Your task to perform on an android device: Search for the best custom wallets on Etsy. Image 0: 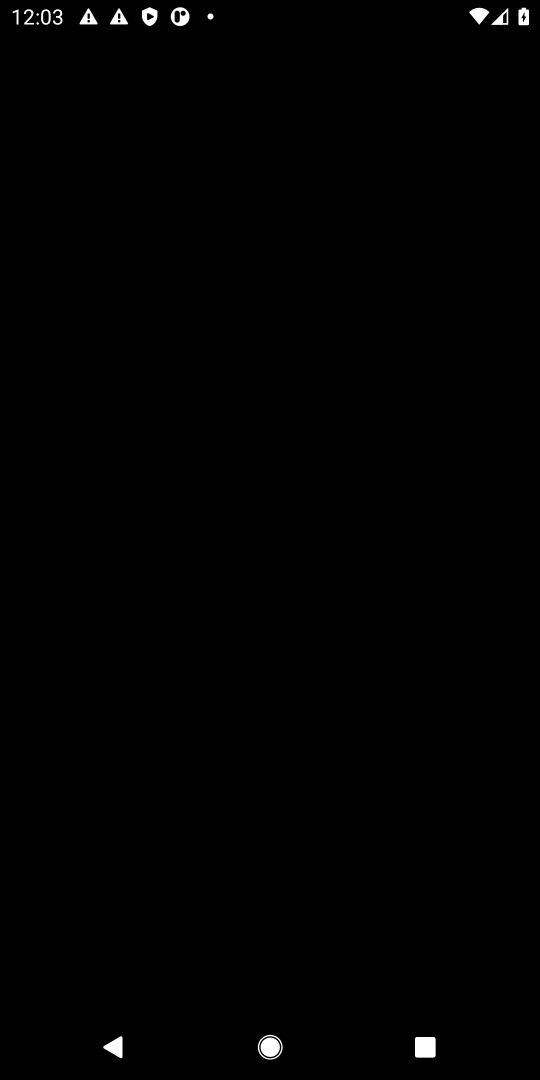
Step 0: press home button
Your task to perform on an android device: Search for the best custom wallets on Etsy. Image 1: 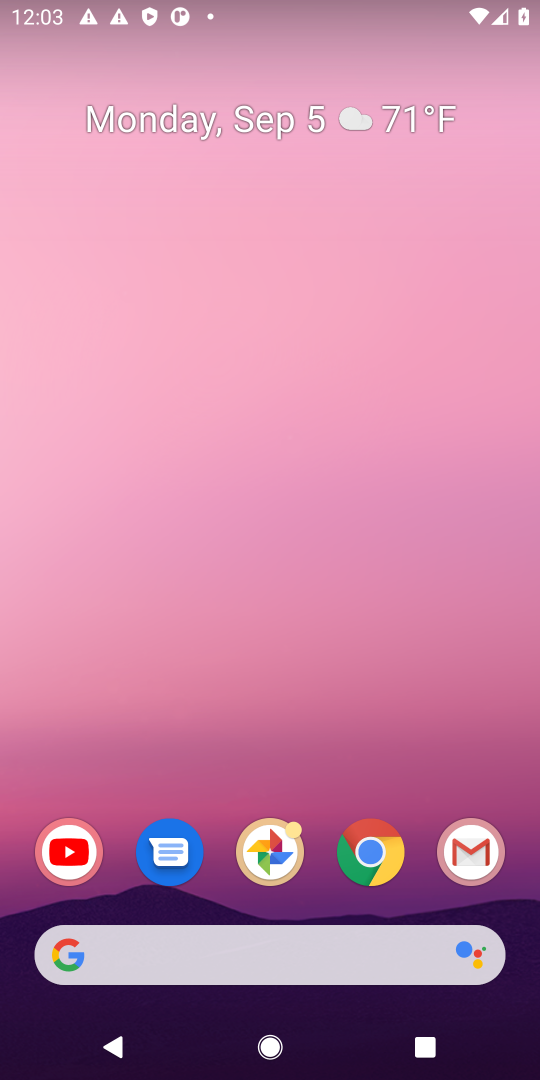
Step 1: click (371, 853)
Your task to perform on an android device: Search for the best custom wallets on Etsy. Image 2: 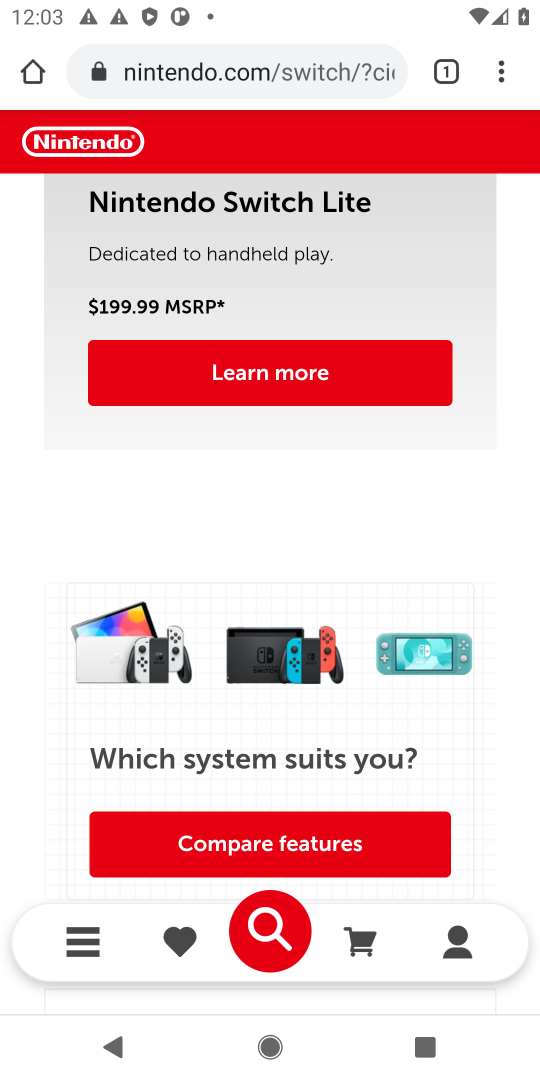
Step 2: click (248, 47)
Your task to perform on an android device: Search for the best custom wallets on Etsy. Image 3: 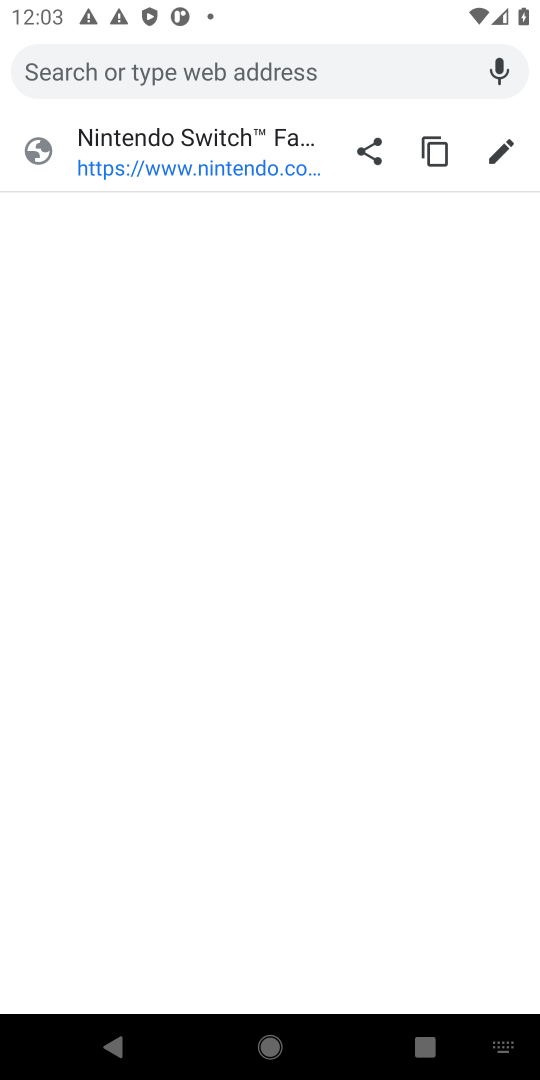
Step 3: type "Etsy"
Your task to perform on an android device: Search for the best custom wallets on Etsy. Image 4: 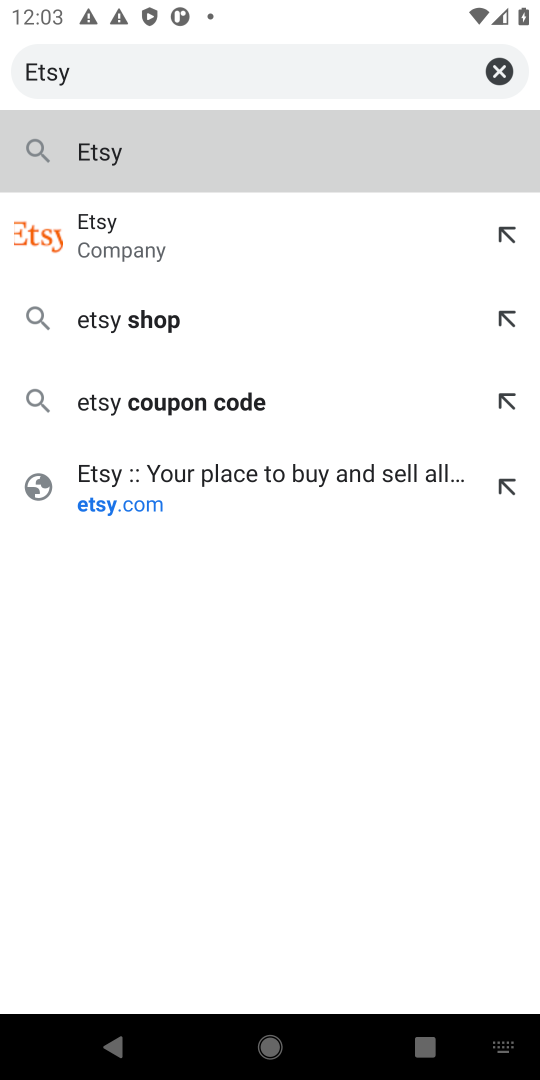
Step 4: click (125, 226)
Your task to perform on an android device: Search for the best custom wallets on Etsy. Image 5: 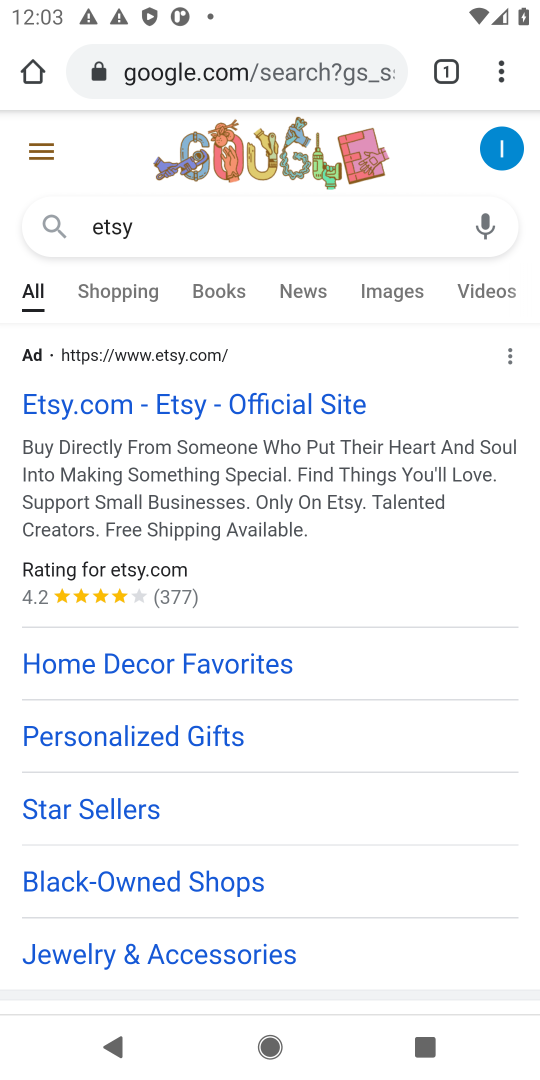
Step 5: click (84, 409)
Your task to perform on an android device: Search for the best custom wallets on Etsy. Image 6: 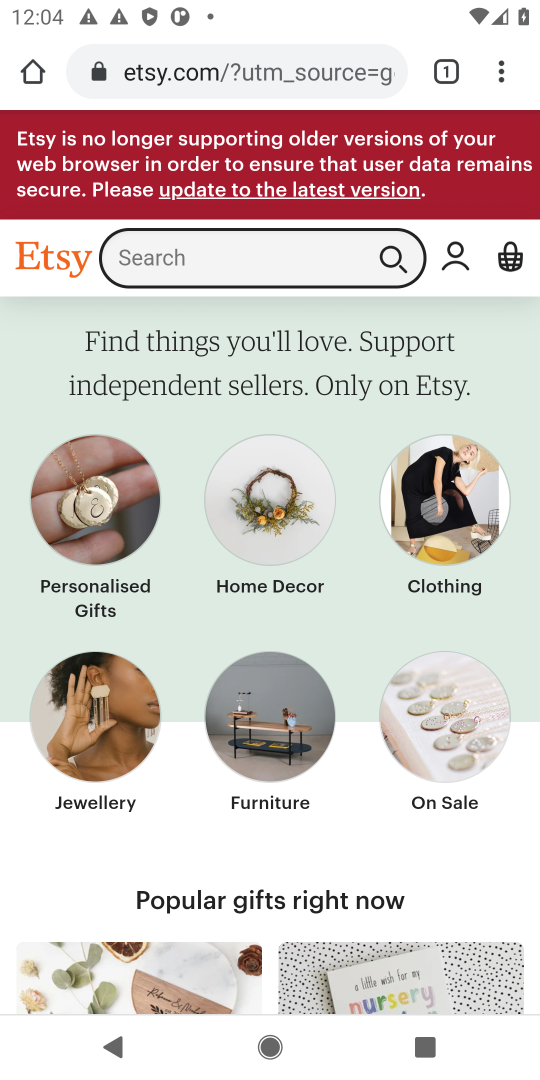
Step 6: click (158, 248)
Your task to perform on an android device: Search for the best custom wallets on Etsy. Image 7: 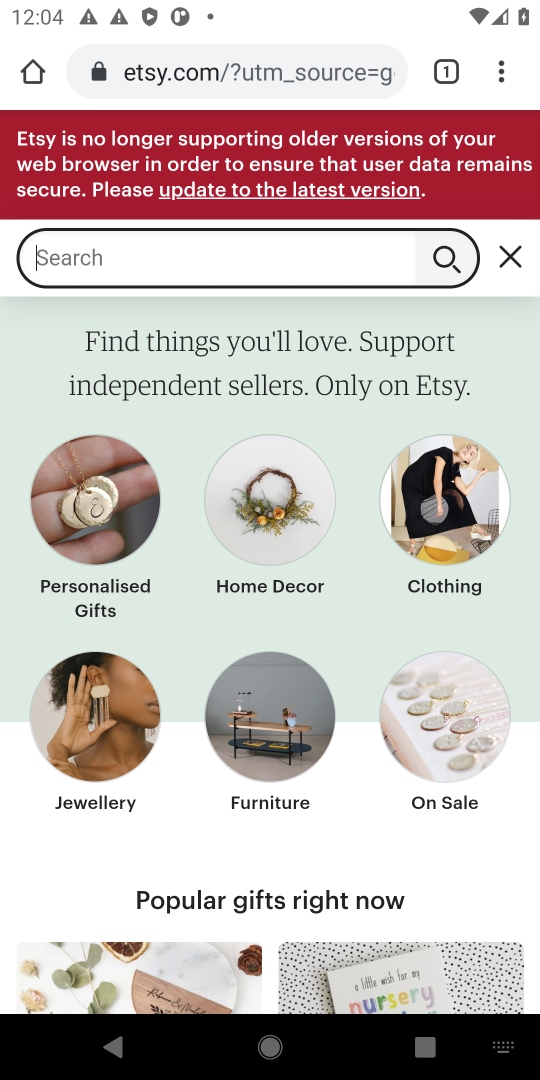
Step 7: type " custom wallets"
Your task to perform on an android device: Search for the best custom wallets on Etsy. Image 8: 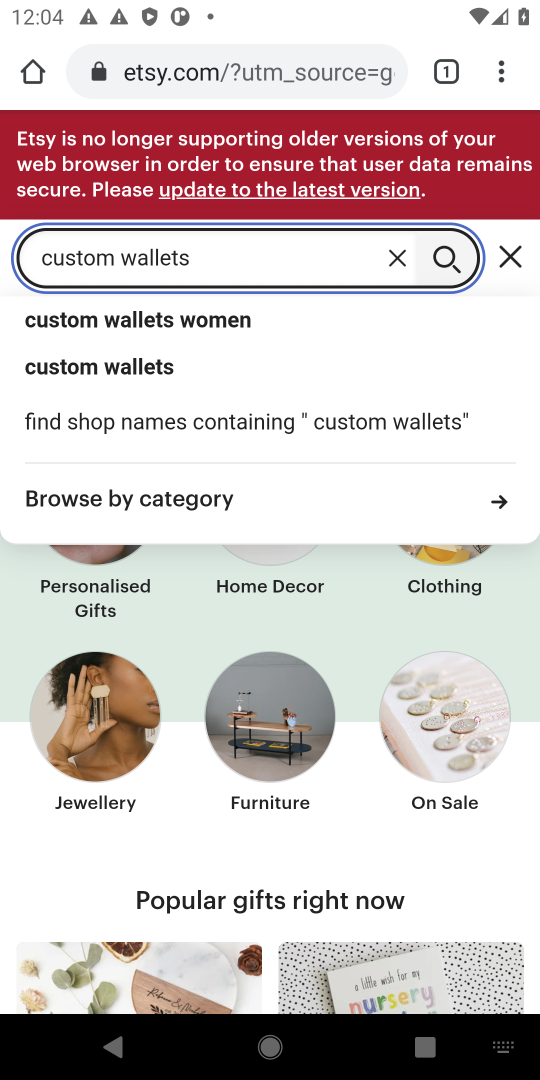
Step 8: click (443, 253)
Your task to perform on an android device: Search for the best custom wallets on Etsy. Image 9: 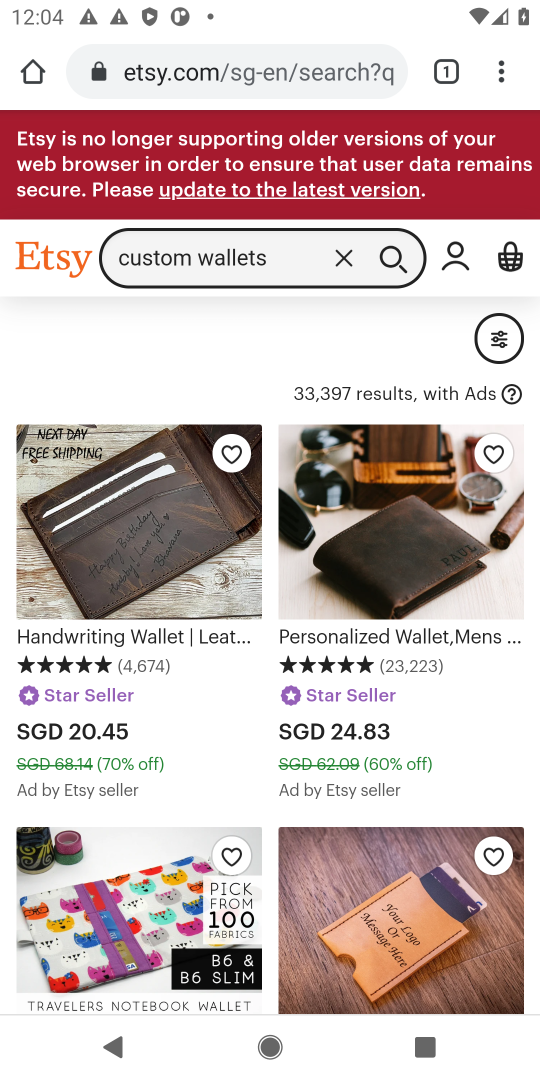
Step 9: drag from (269, 749) to (270, 604)
Your task to perform on an android device: Search for the best custom wallets on Etsy. Image 10: 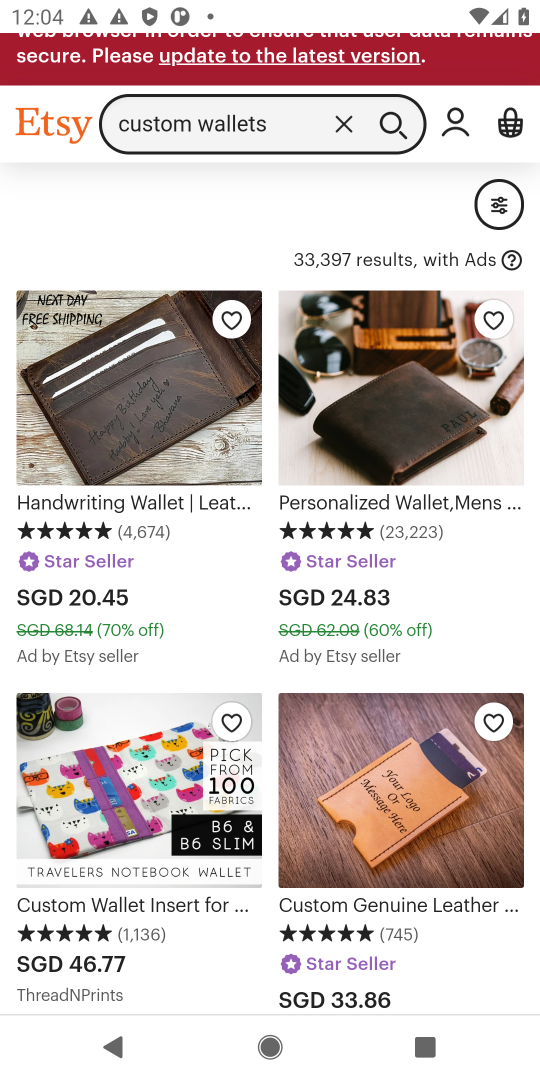
Step 10: drag from (270, 877) to (252, 339)
Your task to perform on an android device: Search for the best custom wallets on Etsy. Image 11: 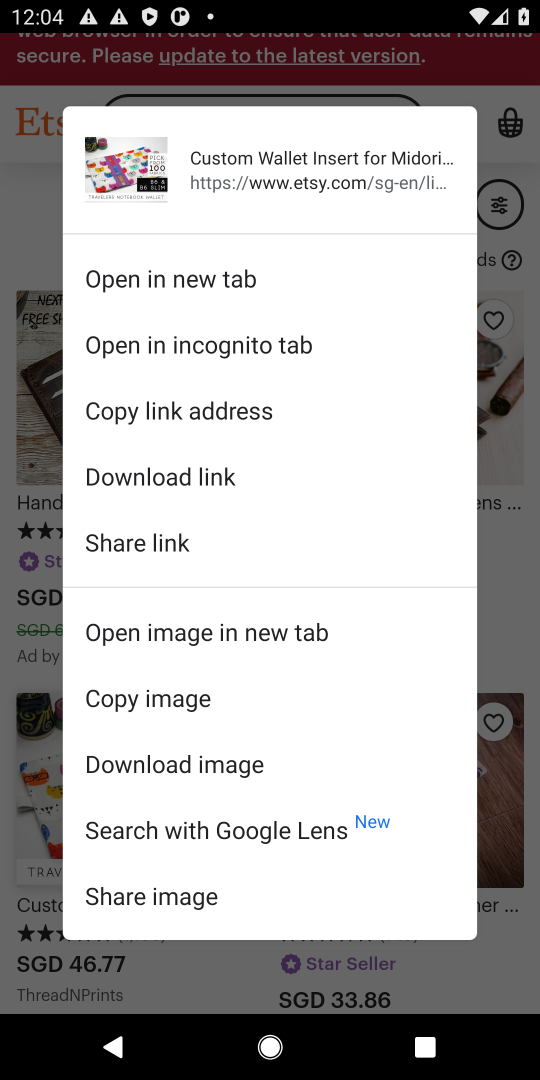
Step 11: click (3, 944)
Your task to perform on an android device: Search for the best custom wallets on Etsy. Image 12: 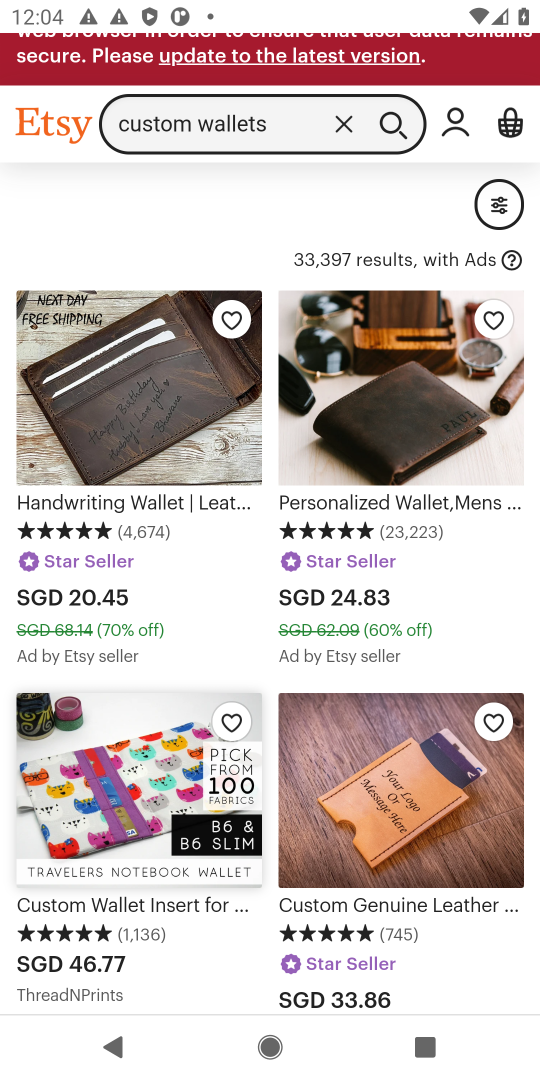
Step 12: drag from (272, 877) to (270, 480)
Your task to perform on an android device: Search for the best custom wallets on Etsy. Image 13: 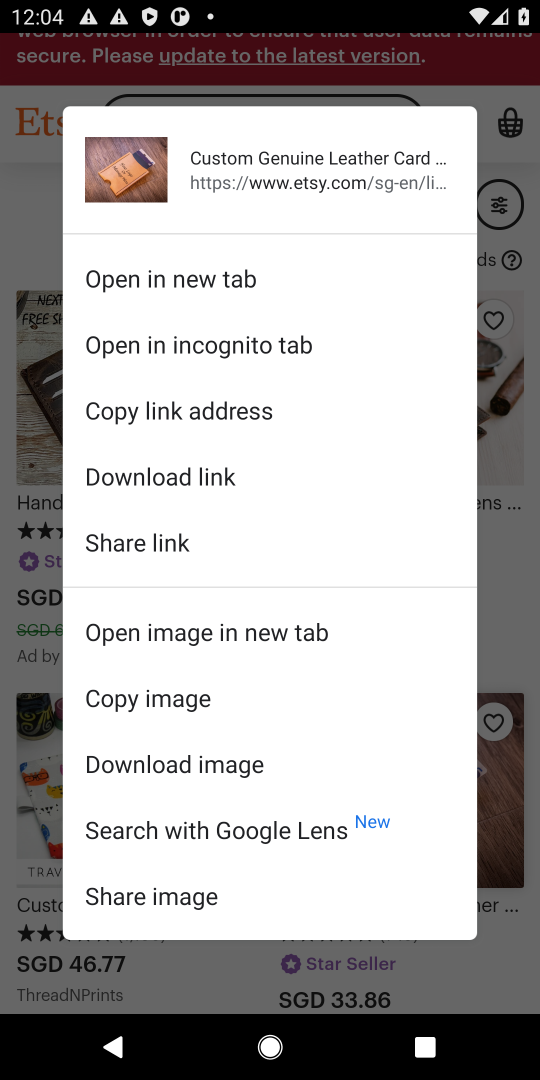
Step 13: click (532, 774)
Your task to perform on an android device: Search for the best custom wallets on Etsy. Image 14: 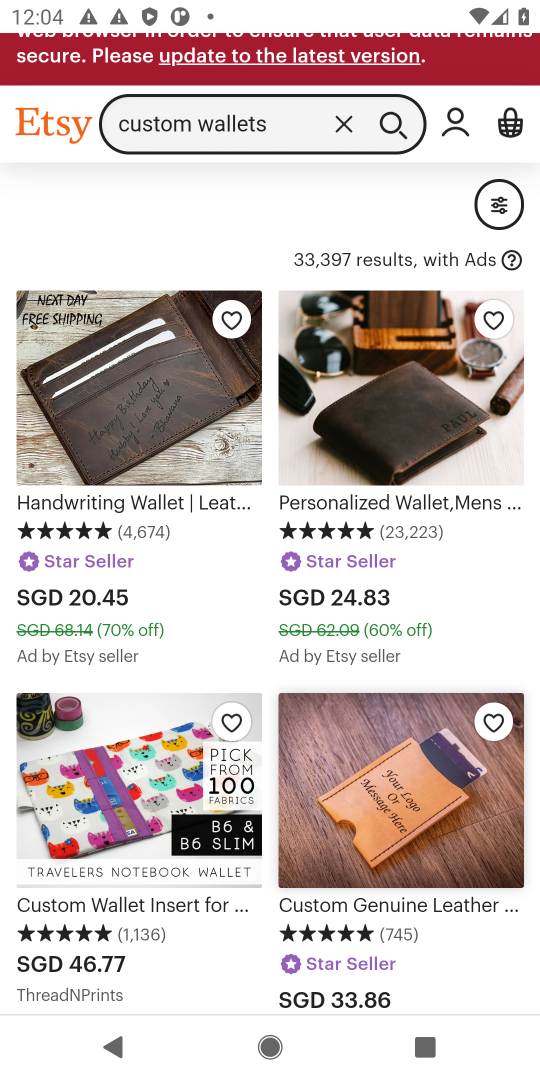
Step 14: task complete